Your task to perform on an android device: remove spam from my inbox in the gmail app Image 0: 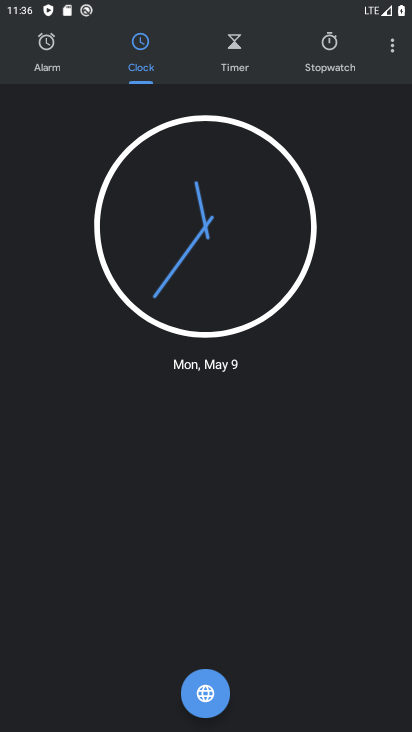
Step 0: press home button
Your task to perform on an android device: remove spam from my inbox in the gmail app Image 1: 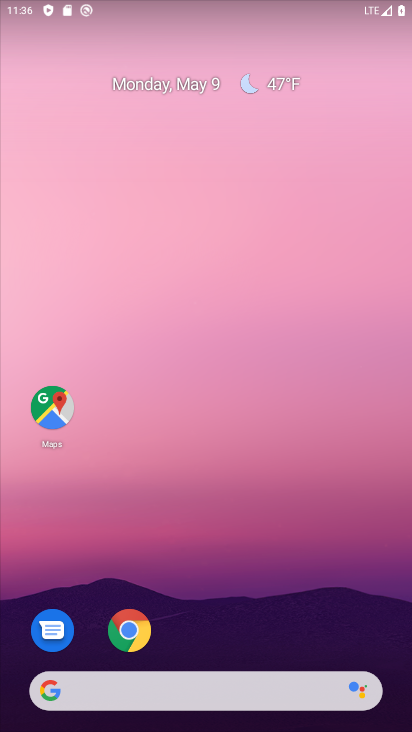
Step 1: drag from (139, 688) to (324, 68)
Your task to perform on an android device: remove spam from my inbox in the gmail app Image 2: 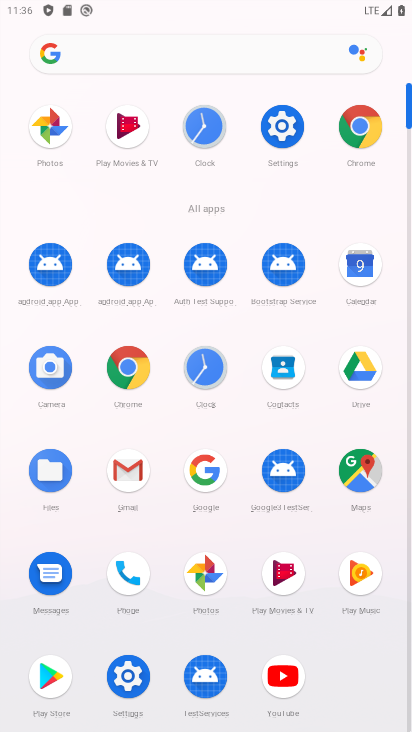
Step 2: click (128, 479)
Your task to perform on an android device: remove spam from my inbox in the gmail app Image 3: 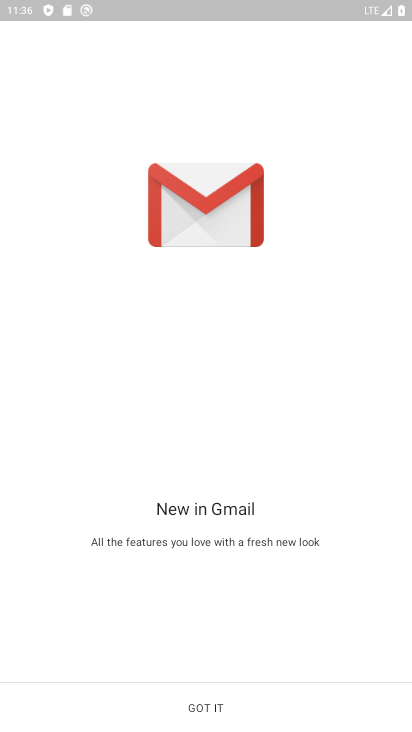
Step 3: click (205, 712)
Your task to perform on an android device: remove spam from my inbox in the gmail app Image 4: 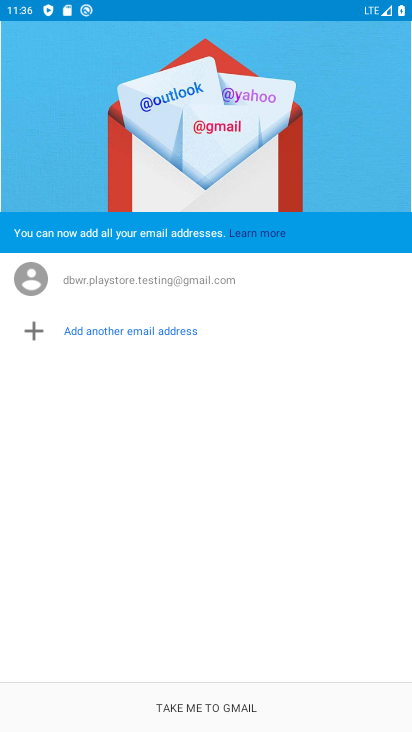
Step 4: click (206, 705)
Your task to perform on an android device: remove spam from my inbox in the gmail app Image 5: 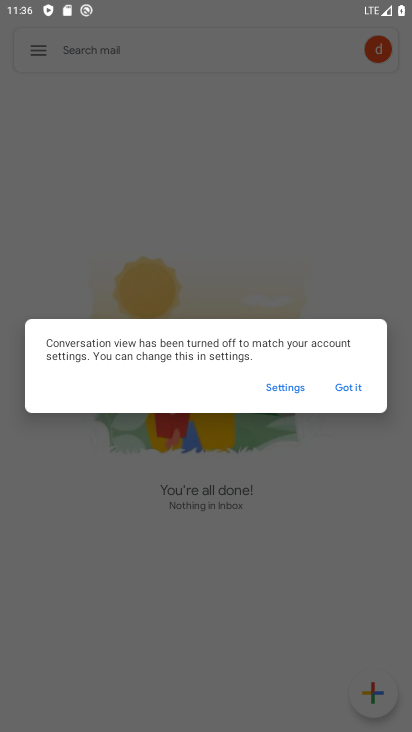
Step 5: click (340, 389)
Your task to perform on an android device: remove spam from my inbox in the gmail app Image 6: 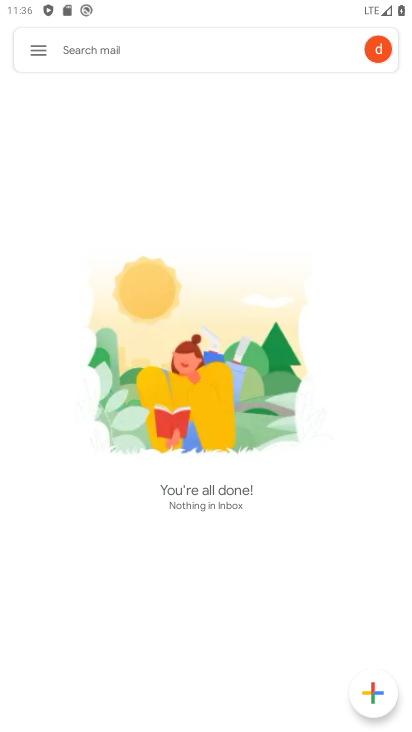
Step 6: click (33, 54)
Your task to perform on an android device: remove spam from my inbox in the gmail app Image 7: 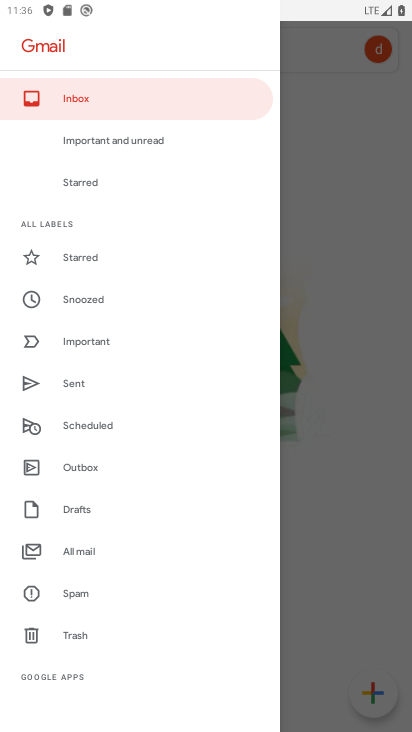
Step 7: click (80, 593)
Your task to perform on an android device: remove spam from my inbox in the gmail app Image 8: 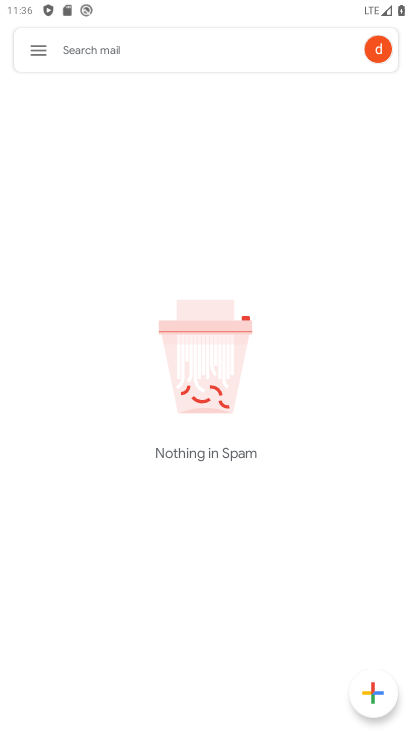
Step 8: task complete